Your task to perform on an android device: Open Chrome and go to settings Image 0: 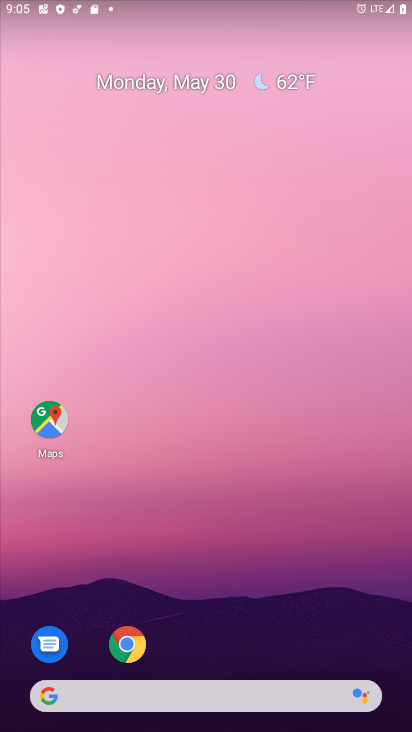
Step 0: click (129, 646)
Your task to perform on an android device: Open Chrome and go to settings Image 1: 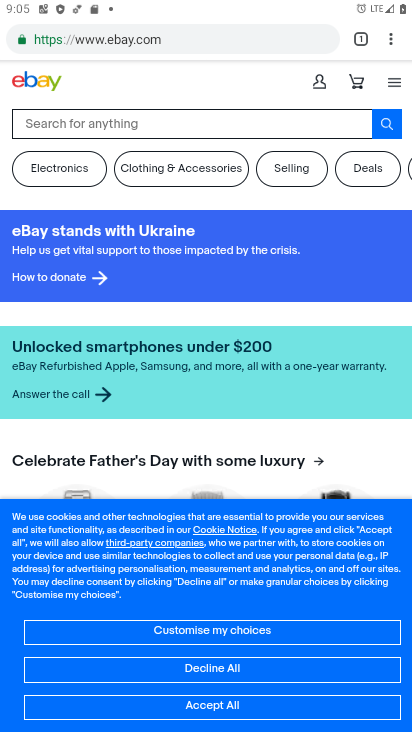
Step 1: click (389, 40)
Your task to perform on an android device: Open Chrome and go to settings Image 2: 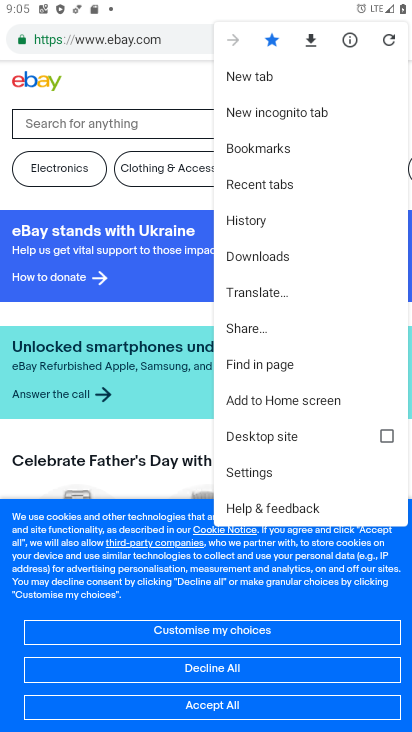
Step 2: click (256, 473)
Your task to perform on an android device: Open Chrome and go to settings Image 3: 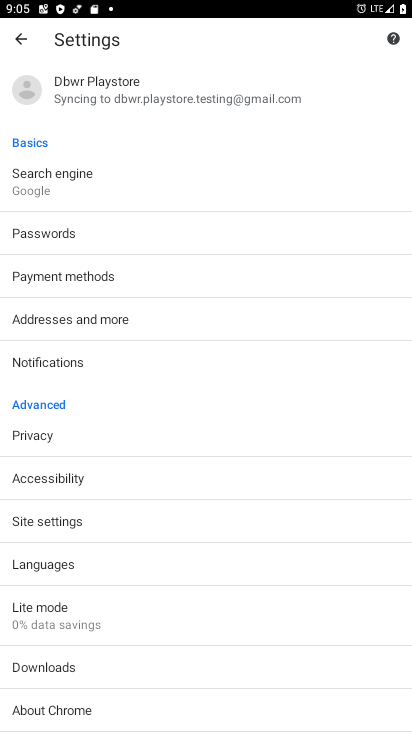
Step 3: task complete